Your task to perform on an android device: toggle javascript in the chrome app Image 0: 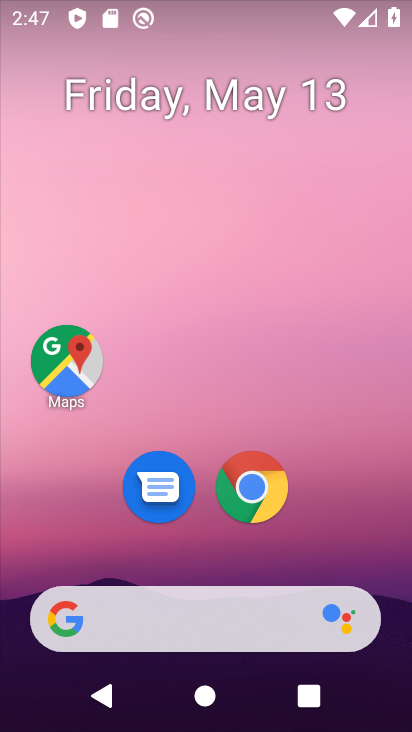
Step 0: drag from (322, 424) to (353, 97)
Your task to perform on an android device: toggle javascript in the chrome app Image 1: 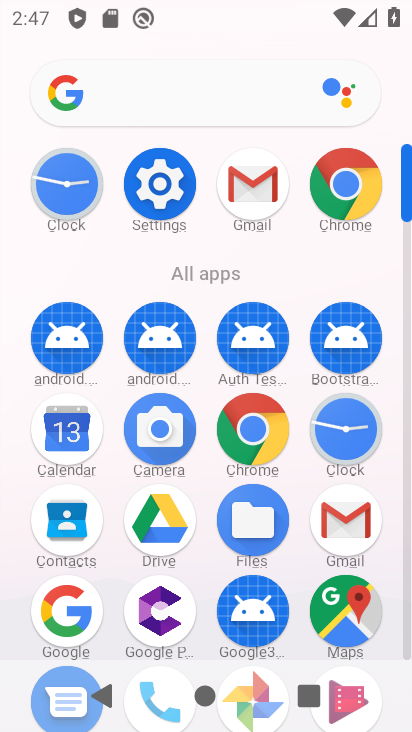
Step 1: click (338, 187)
Your task to perform on an android device: toggle javascript in the chrome app Image 2: 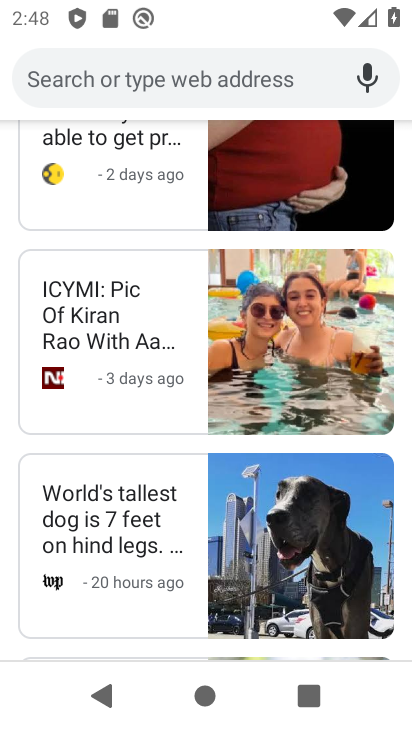
Step 2: drag from (119, 234) to (218, 692)
Your task to perform on an android device: toggle javascript in the chrome app Image 3: 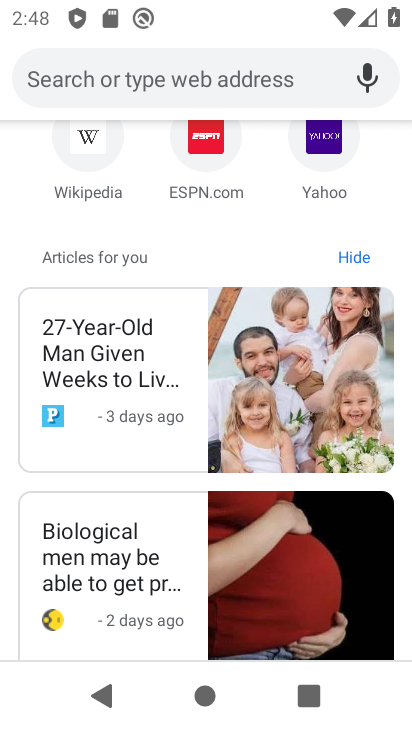
Step 3: drag from (81, 353) to (148, 694)
Your task to perform on an android device: toggle javascript in the chrome app Image 4: 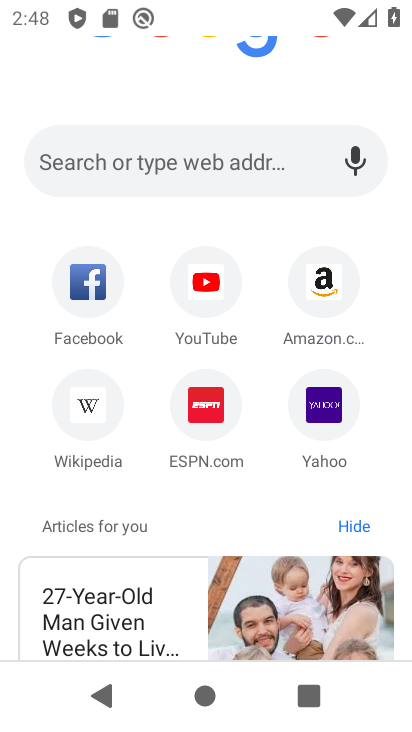
Step 4: drag from (372, 208) to (349, 600)
Your task to perform on an android device: toggle javascript in the chrome app Image 5: 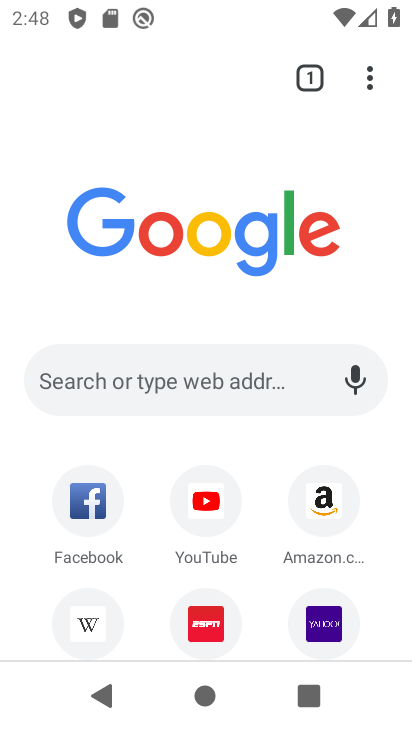
Step 5: drag from (372, 68) to (140, 554)
Your task to perform on an android device: toggle javascript in the chrome app Image 6: 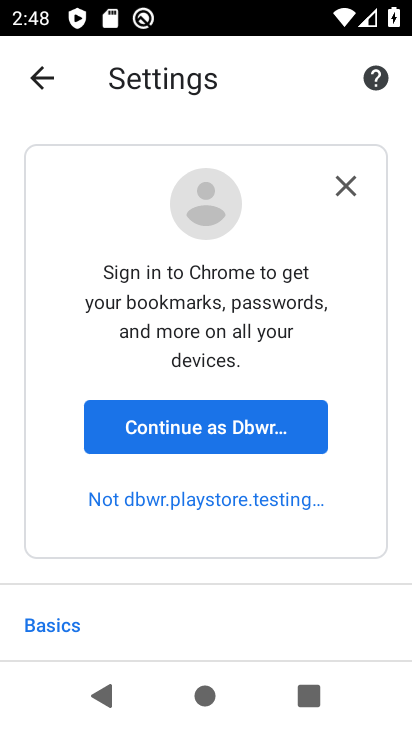
Step 6: drag from (154, 562) to (193, 184)
Your task to perform on an android device: toggle javascript in the chrome app Image 7: 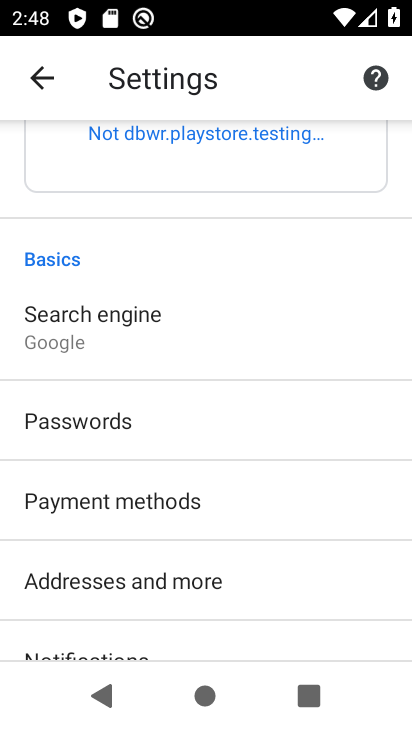
Step 7: drag from (222, 545) to (223, 228)
Your task to perform on an android device: toggle javascript in the chrome app Image 8: 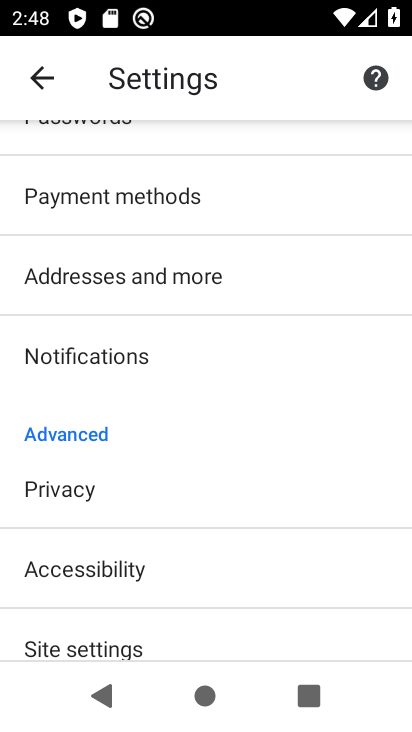
Step 8: drag from (172, 557) to (212, 269)
Your task to perform on an android device: toggle javascript in the chrome app Image 9: 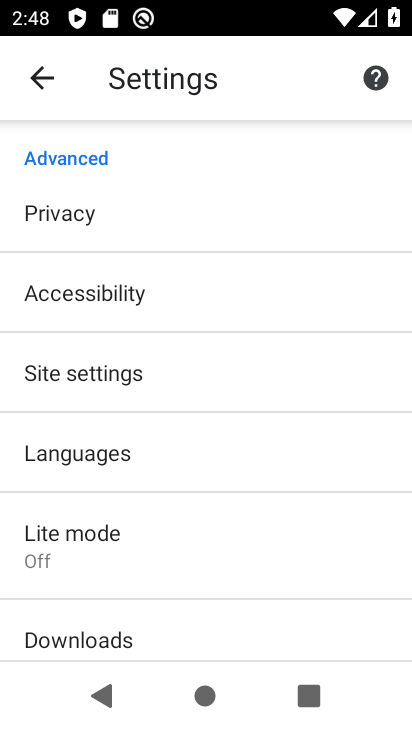
Step 9: click (126, 383)
Your task to perform on an android device: toggle javascript in the chrome app Image 10: 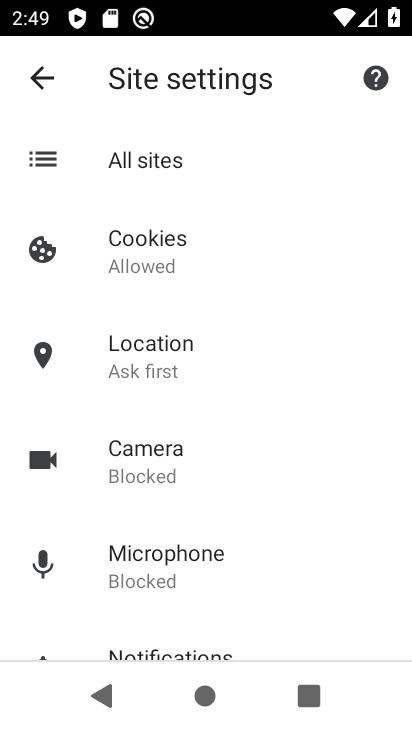
Step 10: drag from (176, 563) to (244, 186)
Your task to perform on an android device: toggle javascript in the chrome app Image 11: 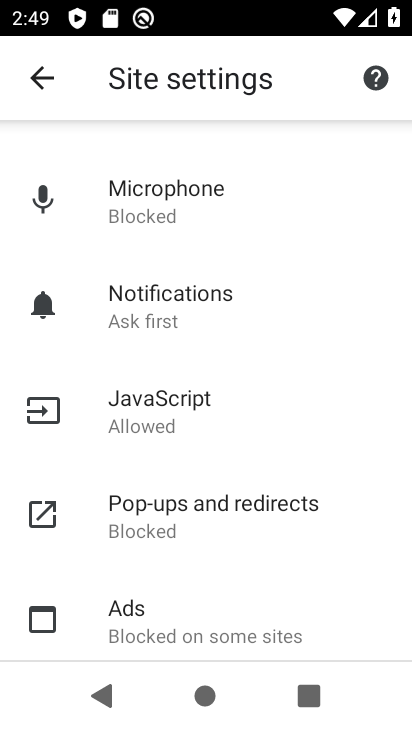
Step 11: click (191, 404)
Your task to perform on an android device: toggle javascript in the chrome app Image 12: 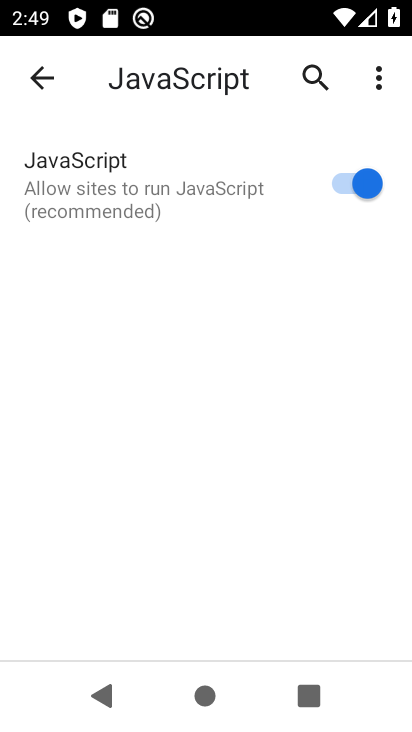
Step 12: click (348, 189)
Your task to perform on an android device: toggle javascript in the chrome app Image 13: 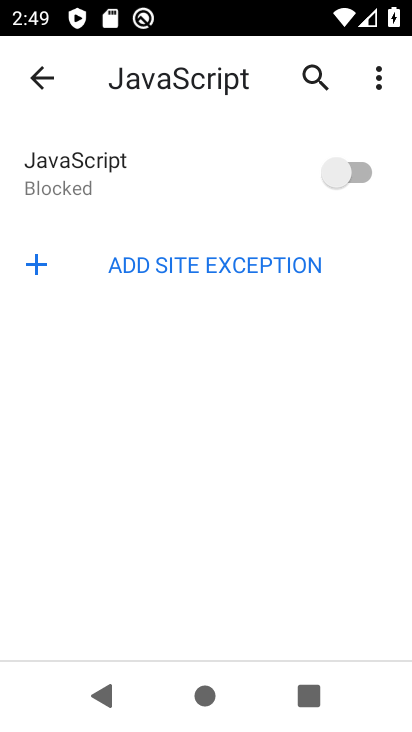
Step 13: task complete